Your task to perform on an android device: What's on my calendar today? Image 0: 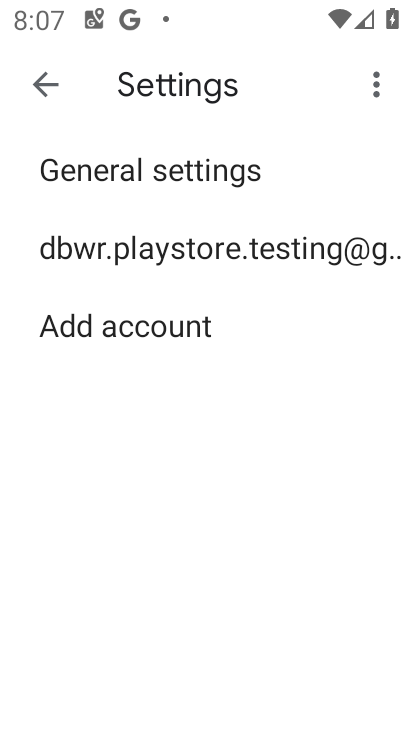
Step 0: press home button
Your task to perform on an android device: What's on my calendar today? Image 1: 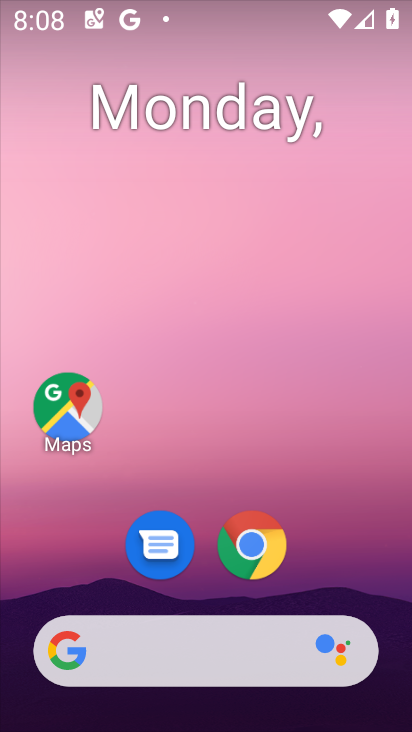
Step 1: drag from (177, 646) to (255, 76)
Your task to perform on an android device: What's on my calendar today? Image 2: 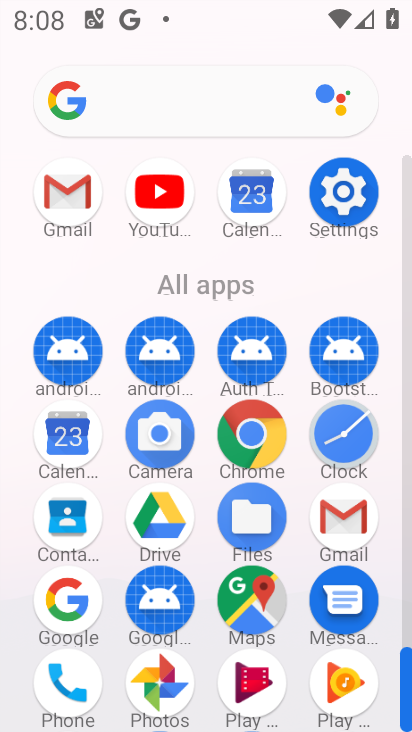
Step 2: click (67, 440)
Your task to perform on an android device: What's on my calendar today? Image 3: 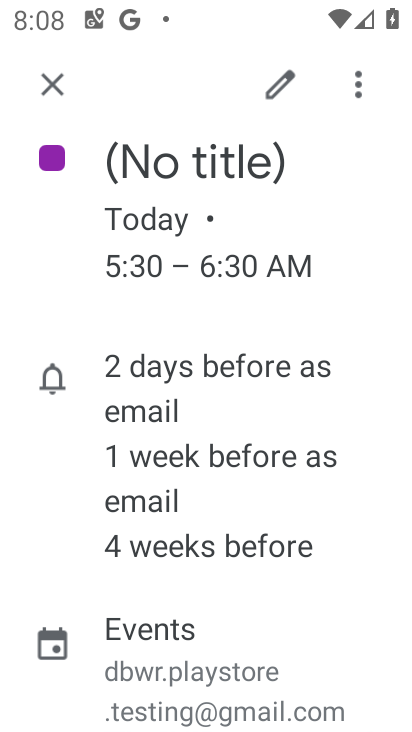
Step 3: click (58, 78)
Your task to perform on an android device: What's on my calendar today? Image 4: 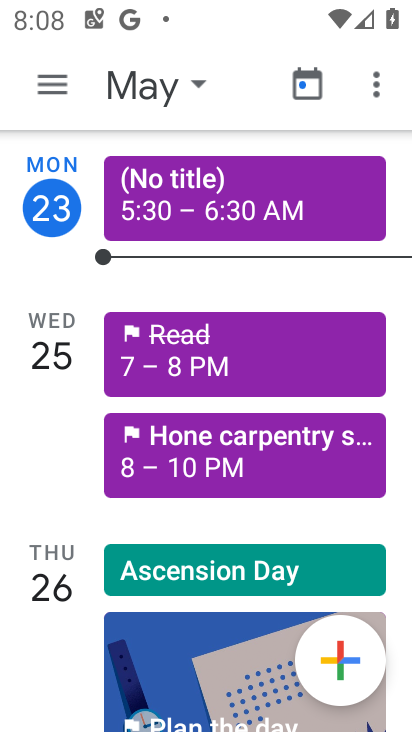
Step 4: click (154, 90)
Your task to perform on an android device: What's on my calendar today? Image 5: 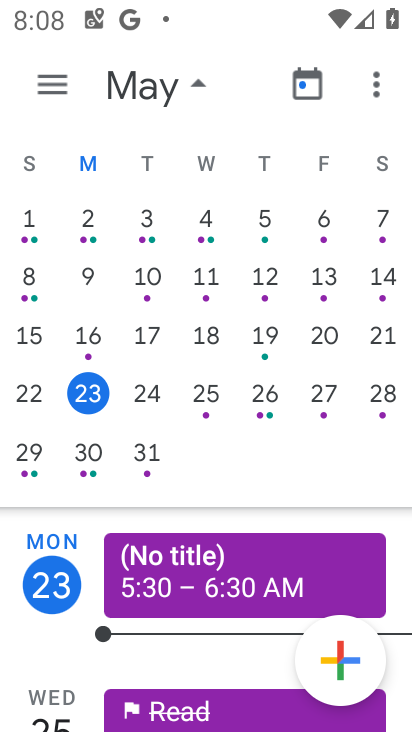
Step 5: task complete